Your task to perform on an android device: allow notifications from all sites in the chrome app Image 0: 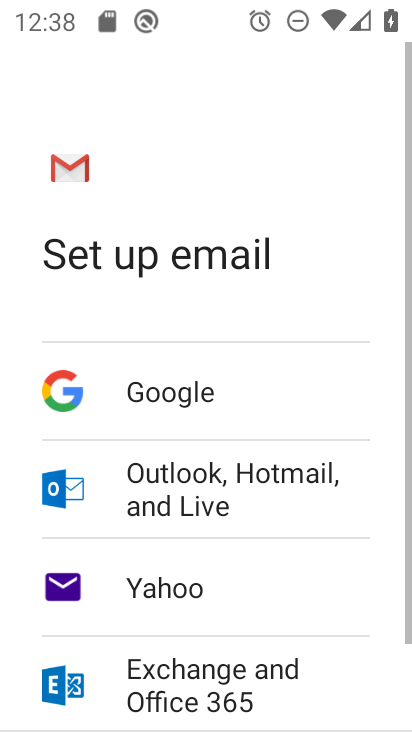
Step 0: press home button
Your task to perform on an android device: allow notifications from all sites in the chrome app Image 1: 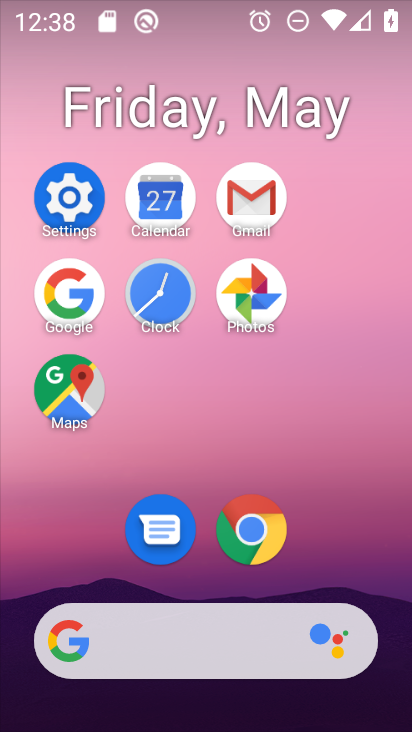
Step 1: click (271, 535)
Your task to perform on an android device: allow notifications from all sites in the chrome app Image 2: 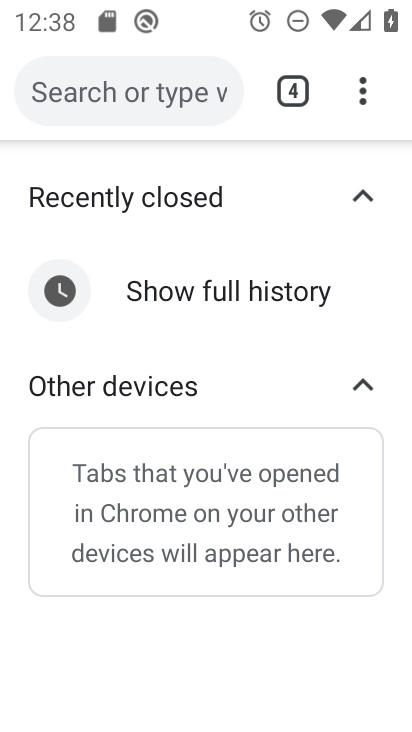
Step 2: click (357, 63)
Your task to perform on an android device: allow notifications from all sites in the chrome app Image 3: 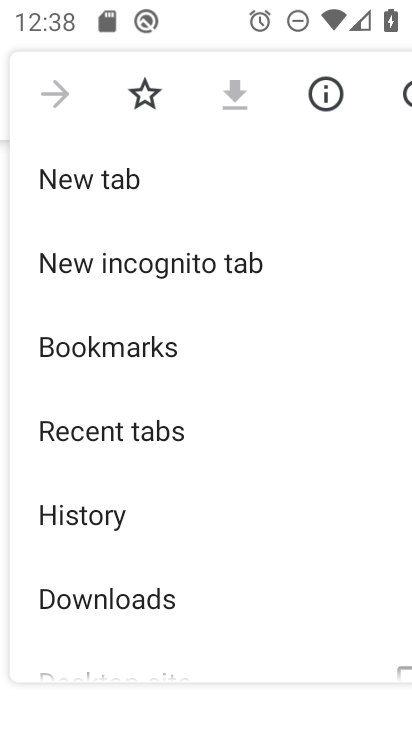
Step 3: drag from (203, 546) to (163, 122)
Your task to perform on an android device: allow notifications from all sites in the chrome app Image 4: 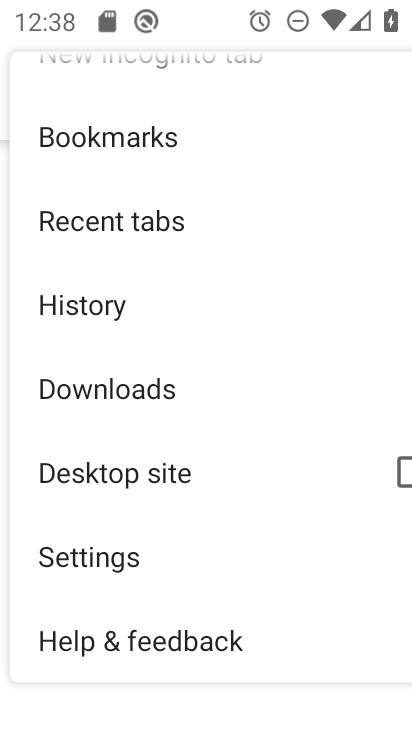
Step 4: click (167, 526)
Your task to perform on an android device: allow notifications from all sites in the chrome app Image 5: 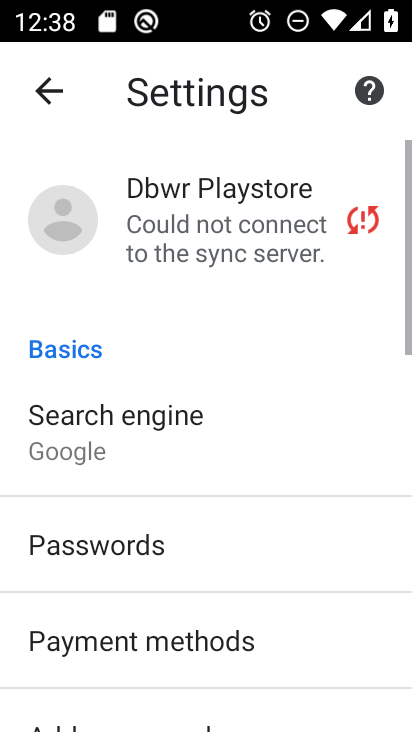
Step 5: drag from (161, 522) to (108, 120)
Your task to perform on an android device: allow notifications from all sites in the chrome app Image 6: 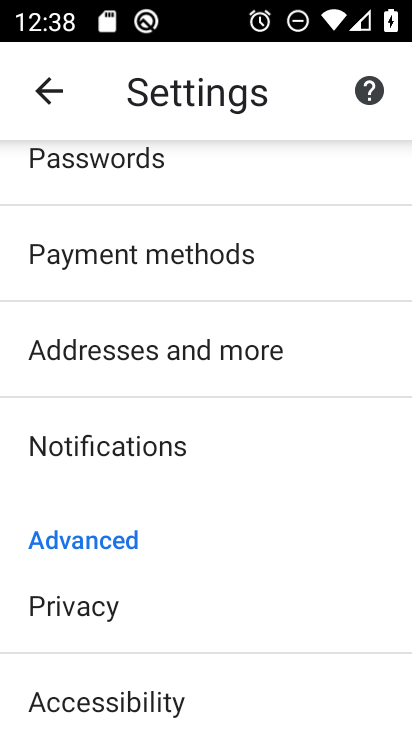
Step 6: drag from (186, 599) to (147, 243)
Your task to perform on an android device: allow notifications from all sites in the chrome app Image 7: 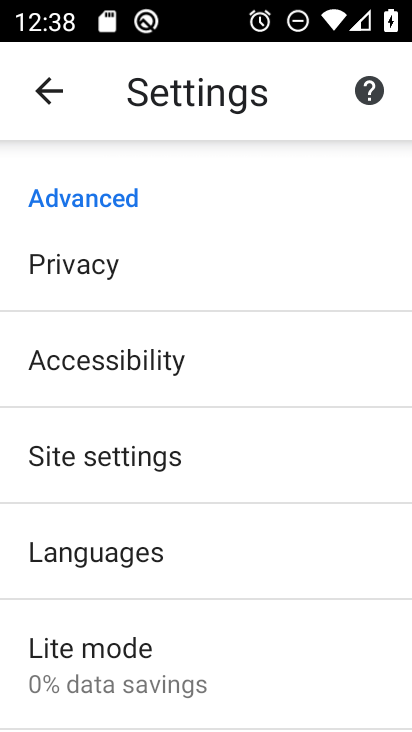
Step 7: click (164, 441)
Your task to perform on an android device: allow notifications from all sites in the chrome app Image 8: 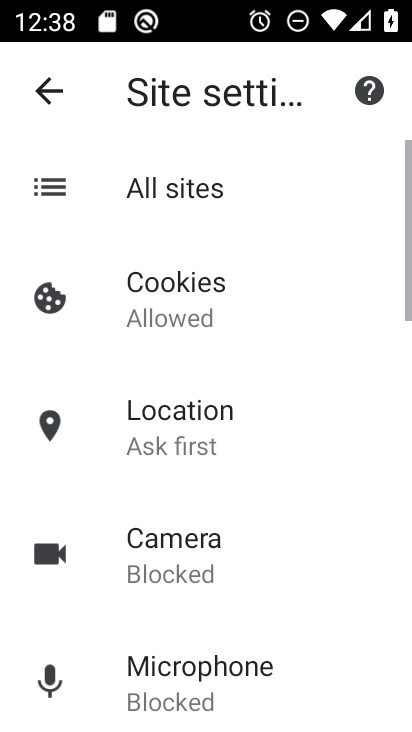
Step 8: click (231, 198)
Your task to perform on an android device: allow notifications from all sites in the chrome app Image 9: 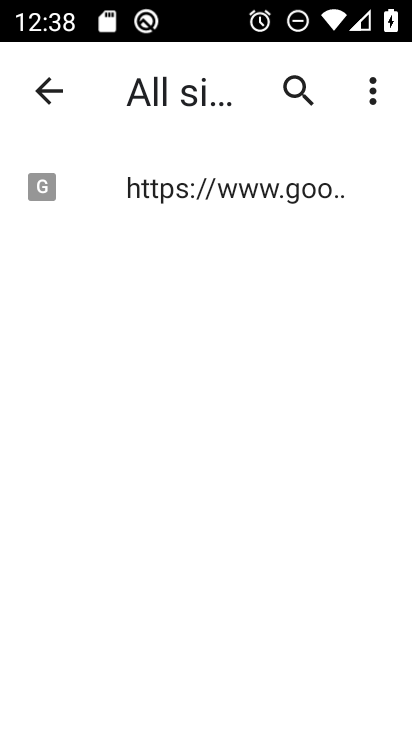
Step 9: task complete